Your task to perform on an android device: turn off smart reply in the gmail app Image 0: 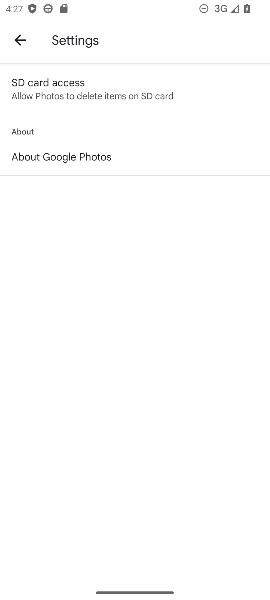
Step 0: press home button
Your task to perform on an android device: turn off smart reply in the gmail app Image 1: 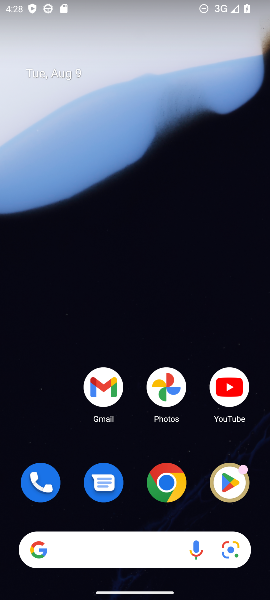
Step 1: click (96, 407)
Your task to perform on an android device: turn off smart reply in the gmail app Image 2: 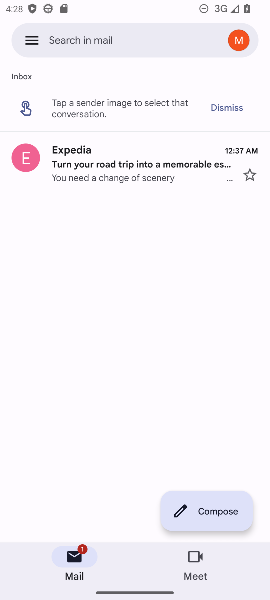
Step 2: click (39, 49)
Your task to perform on an android device: turn off smart reply in the gmail app Image 3: 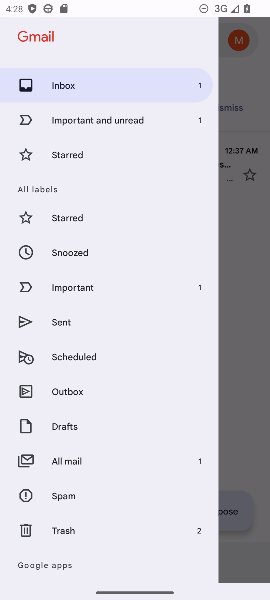
Step 3: drag from (79, 540) to (80, 291)
Your task to perform on an android device: turn off smart reply in the gmail app Image 4: 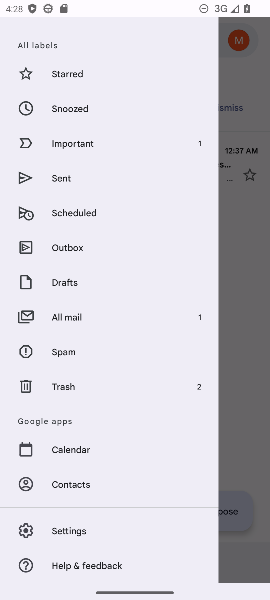
Step 4: click (57, 531)
Your task to perform on an android device: turn off smart reply in the gmail app Image 5: 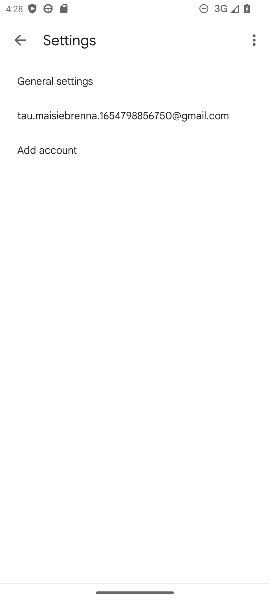
Step 5: click (102, 111)
Your task to perform on an android device: turn off smart reply in the gmail app Image 6: 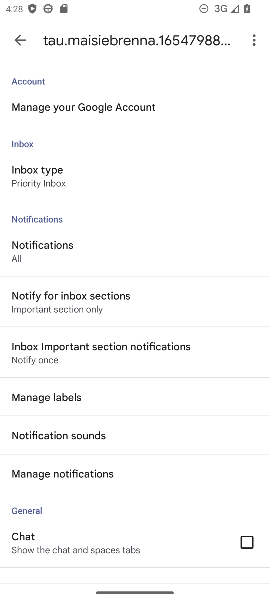
Step 6: task complete